Your task to perform on an android device: Open Maps and search for coffee Image 0: 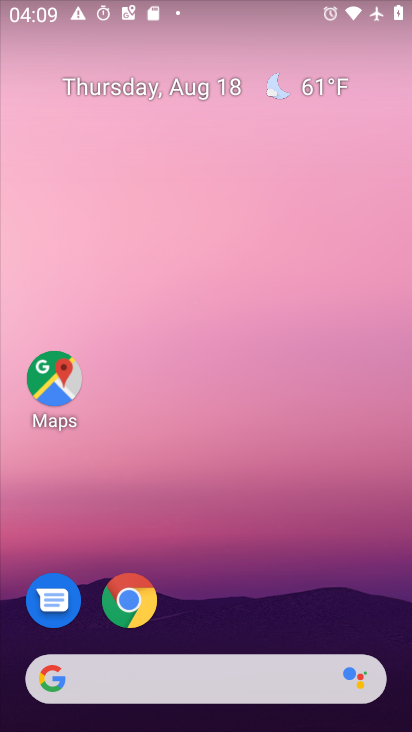
Step 0: press home button
Your task to perform on an android device: Open Maps and search for coffee Image 1: 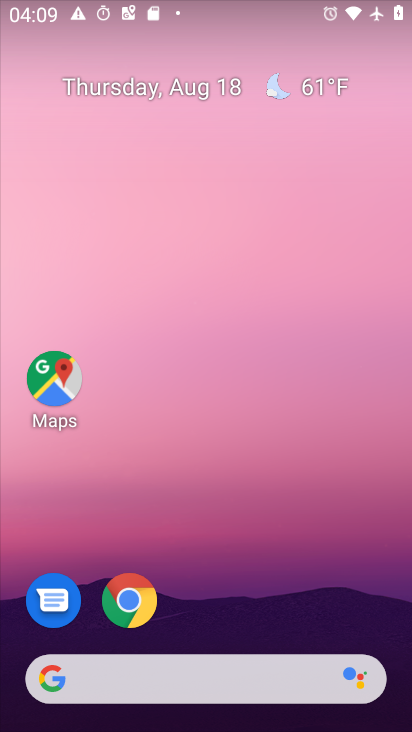
Step 1: click (63, 381)
Your task to perform on an android device: Open Maps and search for coffee Image 2: 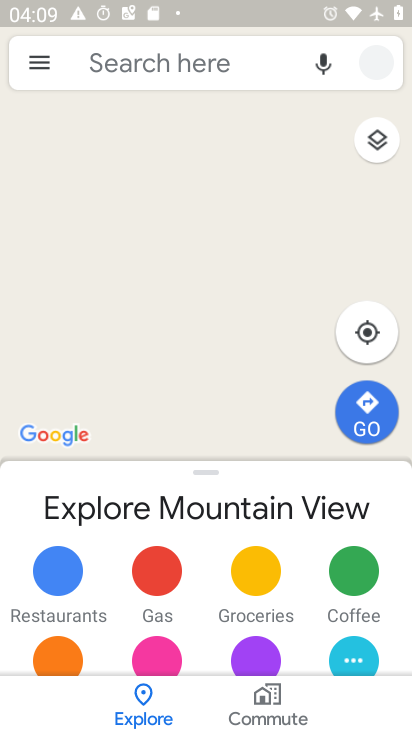
Step 2: click (204, 65)
Your task to perform on an android device: Open Maps and search for coffee Image 3: 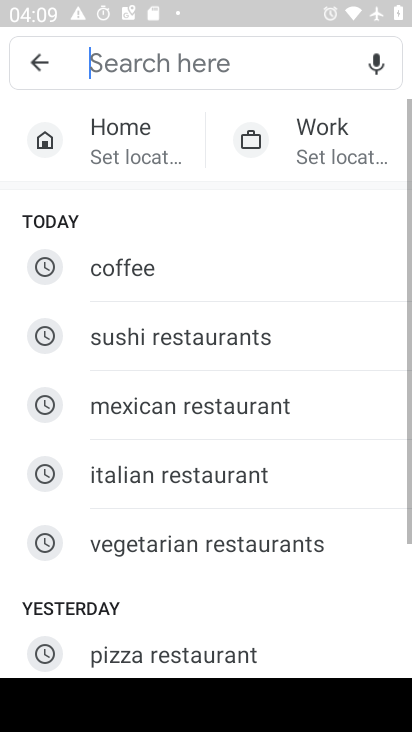
Step 3: click (125, 267)
Your task to perform on an android device: Open Maps and search for coffee Image 4: 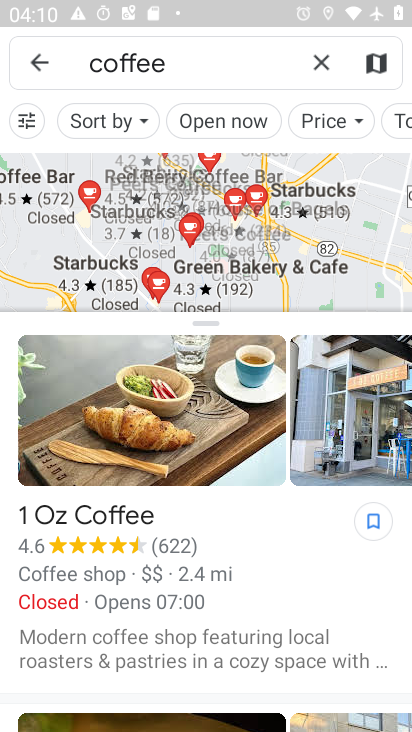
Step 4: task complete